Your task to perform on an android device: turn off smart reply in the gmail app Image 0: 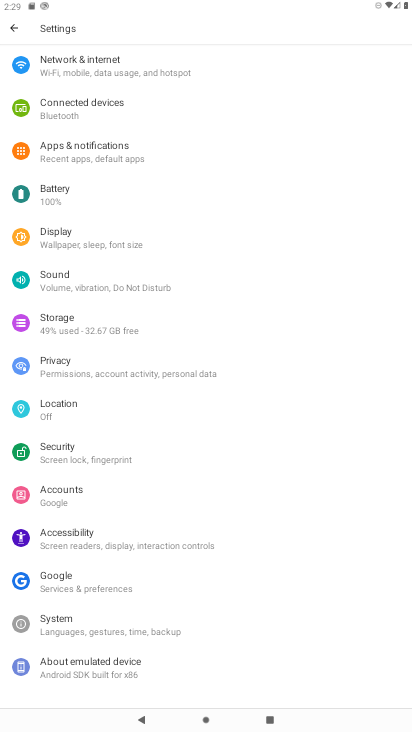
Step 0: press home button
Your task to perform on an android device: turn off smart reply in the gmail app Image 1: 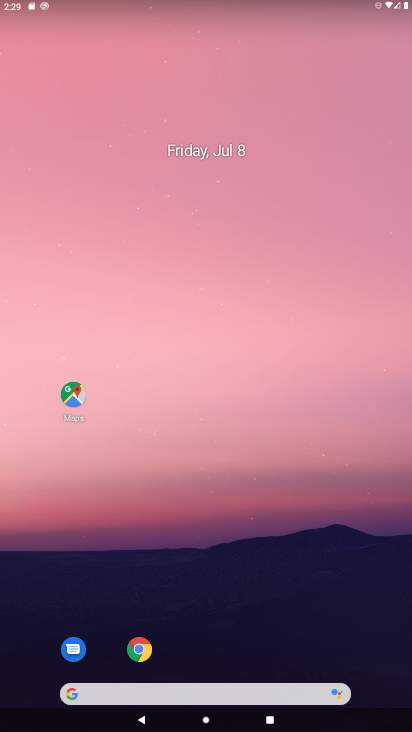
Step 1: drag from (367, 646) to (278, 128)
Your task to perform on an android device: turn off smart reply in the gmail app Image 2: 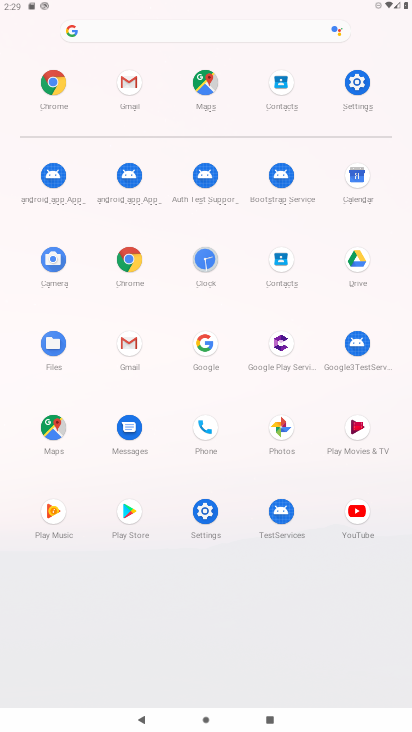
Step 2: click (129, 344)
Your task to perform on an android device: turn off smart reply in the gmail app Image 3: 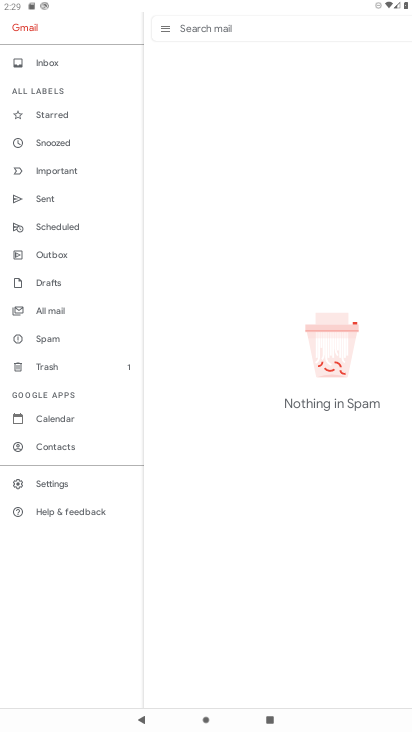
Step 3: click (52, 479)
Your task to perform on an android device: turn off smart reply in the gmail app Image 4: 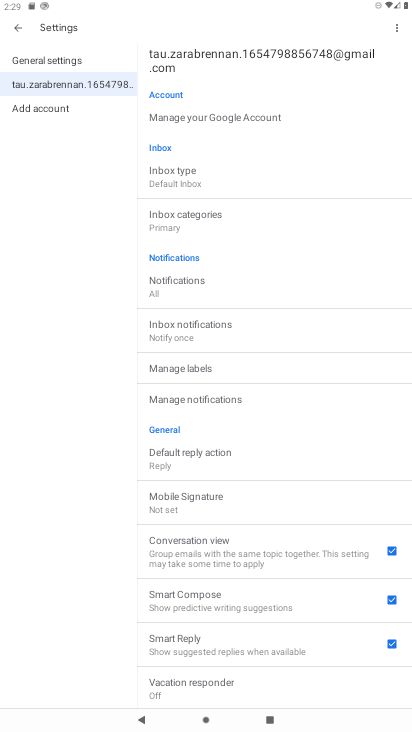
Step 4: click (394, 646)
Your task to perform on an android device: turn off smart reply in the gmail app Image 5: 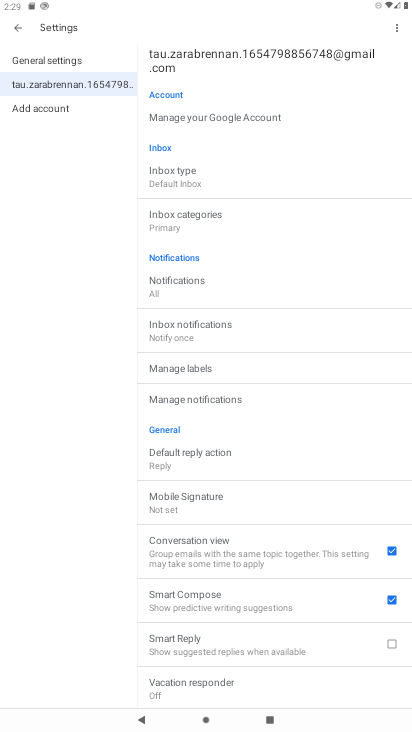
Step 5: task complete